Your task to perform on an android device: Do I have any events tomorrow? Image 0: 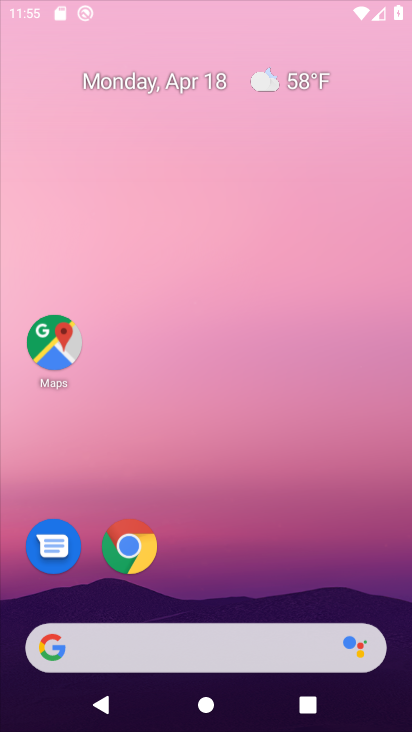
Step 0: drag from (227, 328) to (268, 0)
Your task to perform on an android device: Do I have any events tomorrow? Image 1: 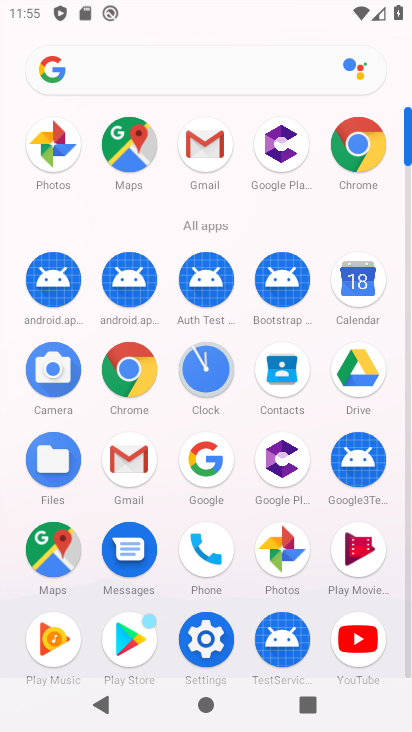
Step 1: click (351, 288)
Your task to perform on an android device: Do I have any events tomorrow? Image 2: 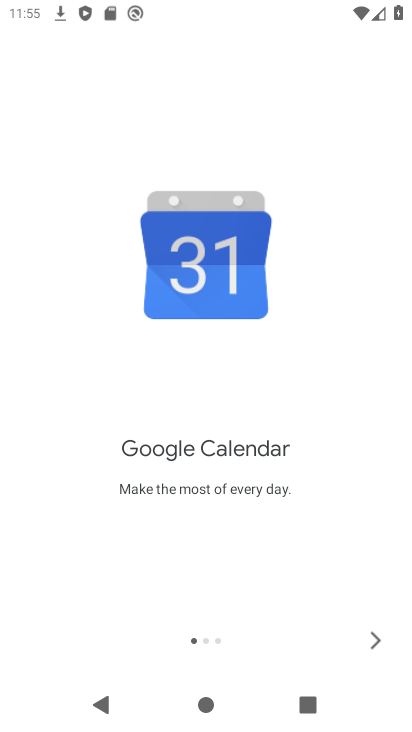
Step 2: click (375, 639)
Your task to perform on an android device: Do I have any events tomorrow? Image 3: 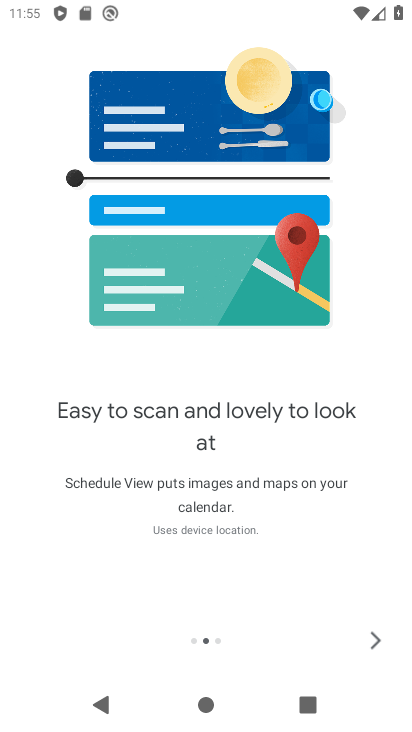
Step 3: click (375, 639)
Your task to perform on an android device: Do I have any events tomorrow? Image 4: 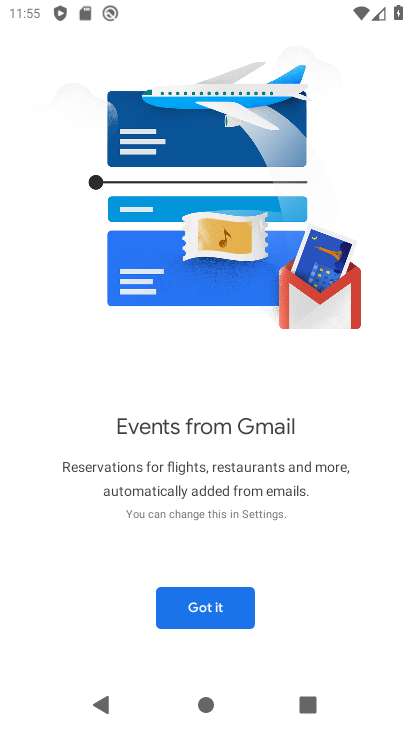
Step 4: click (375, 639)
Your task to perform on an android device: Do I have any events tomorrow? Image 5: 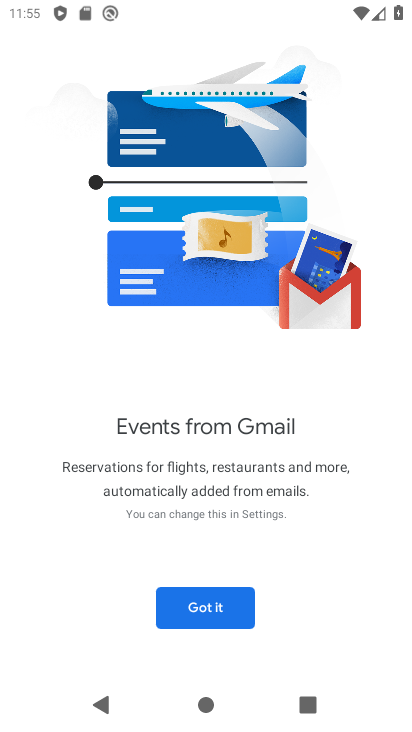
Step 5: click (222, 603)
Your task to perform on an android device: Do I have any events tomorrow? Image 6: 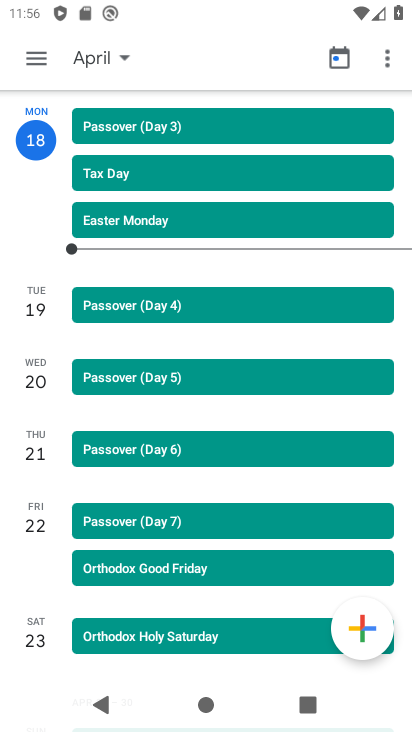
Step 6: click (121, 307)
Your task to perform on an android device: Do I have any events tomorrow? Image 7: 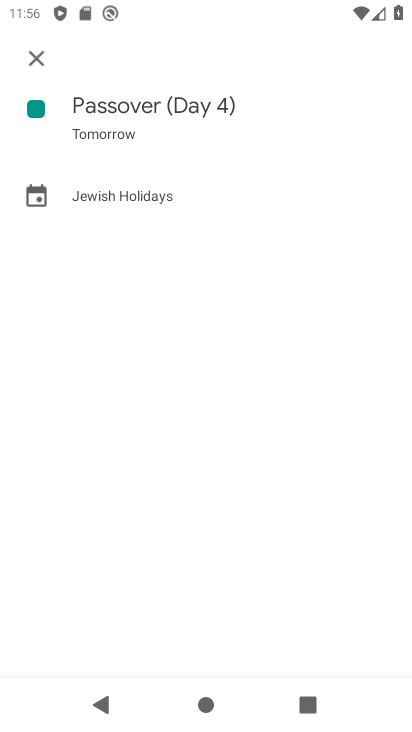
Step 7: task complete